Your task to perform on an android device: Open network settings Image 0: 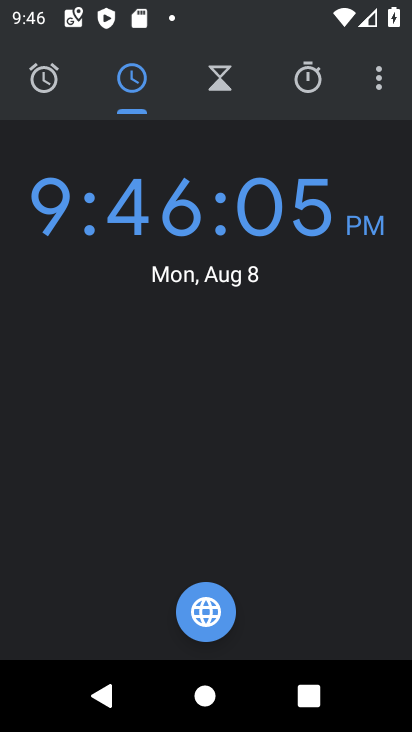
Step 0: press home button
Your task to perform on an android device: Open network settings Image 1: 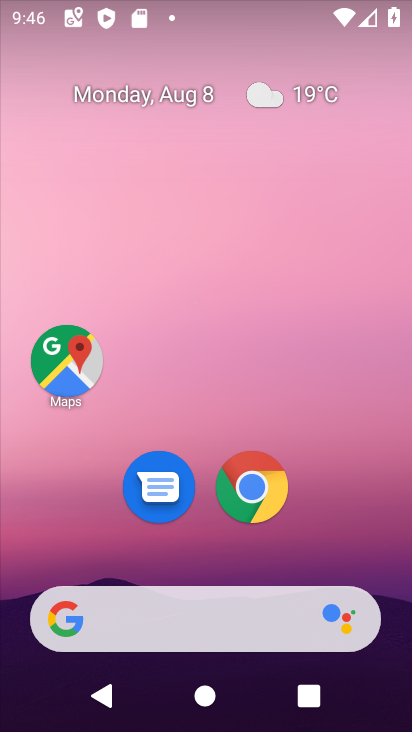
Step 1: drag from (196, 562) to (234, 45)
Your task to perform on an android device: Open network settings Image 2: 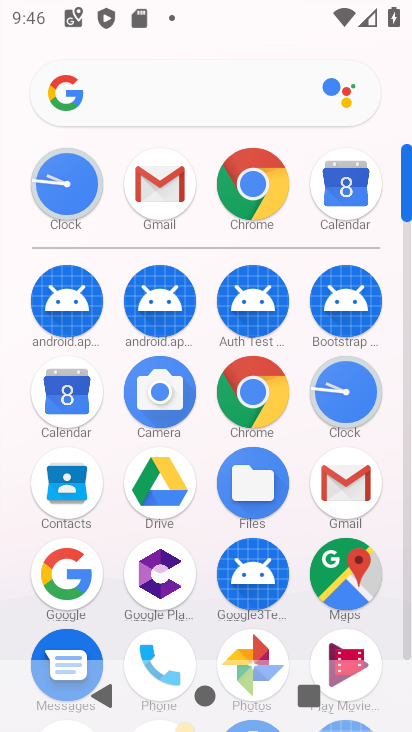
Step 2: drag from (291, 608) to (293, 236)
Your task to perform on an android device: Open network settings Image 3: 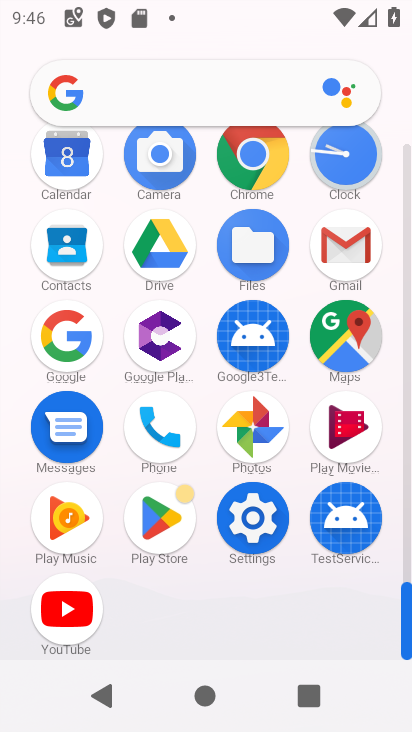
Step 3: click (242, 521)
Your task to perform on an android device: Open network settings Image 4: 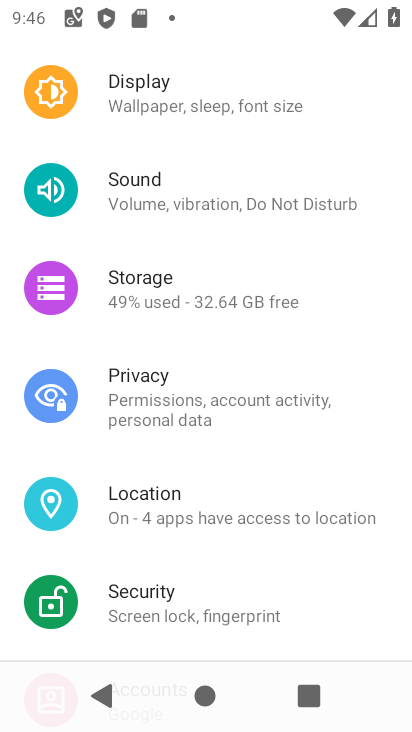
Step 4: drag from (231, 204) to (236, 498)
Your task to perform on an android device: Open network settings Image 5: 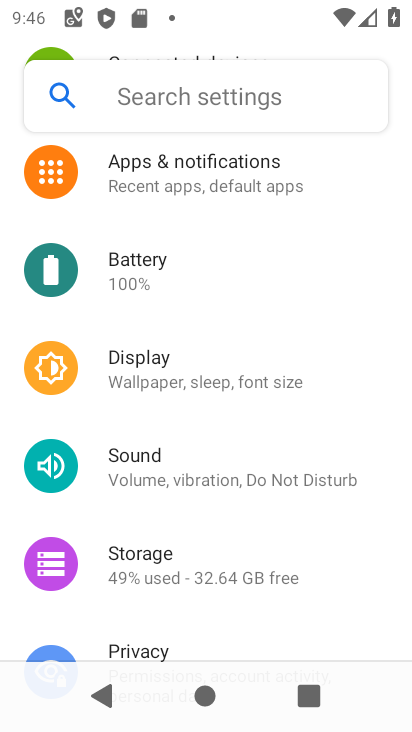
Step 5: drag from (186, 193) to (190, 542)
Your task to perform on an android device: Open network settings Image 6: 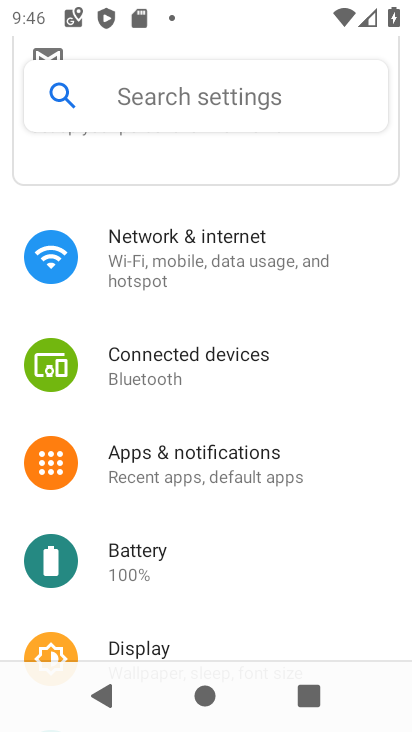
Step 6: click (154, 261)
Your task to perform on an android device: Open network settings Image 7: 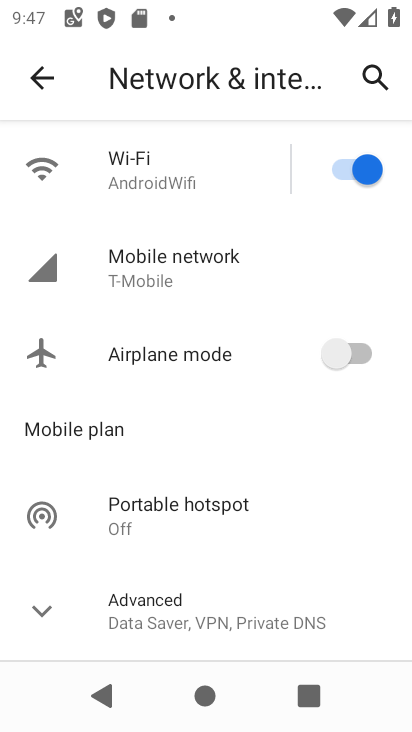
Step 7: click (148, 257)
Your task to perform on an android device: Open network settings Image 8: 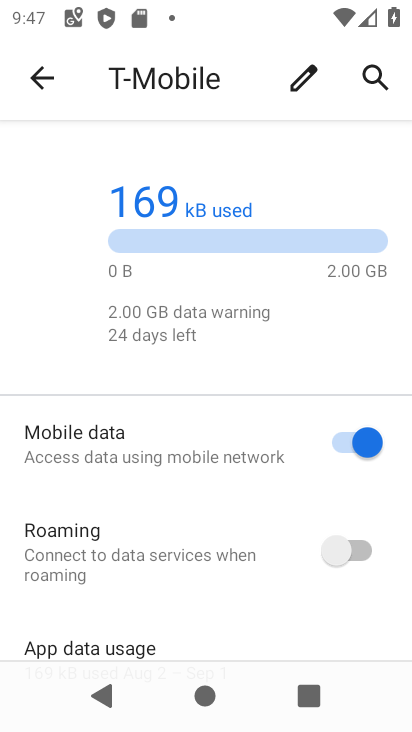
Step 8: task complete